Your task to perform on an android device: read, delete, or share a saved page in the chrome app Image 0: 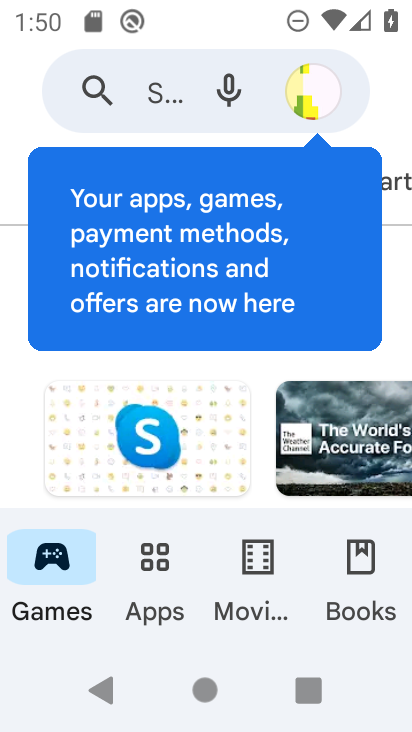
Step 0: press home button
Your task to perform on an android device: read, delete, or share a saved page in the chrome app Image 1: 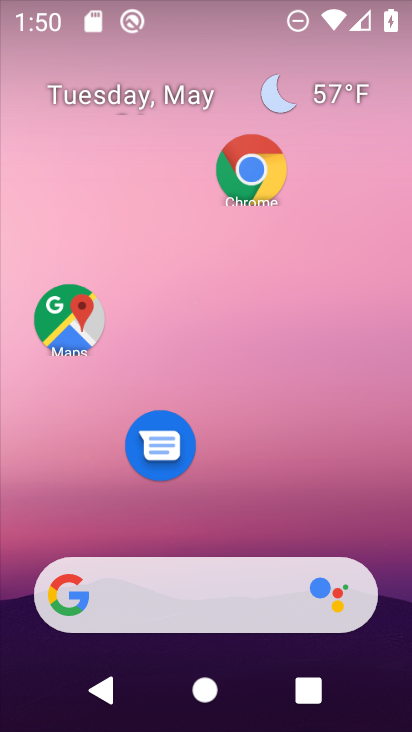
Step 1: click (250, 167)
Your task to perform on an android device: read, delete, or share a saved page in the chrome app Image 2: 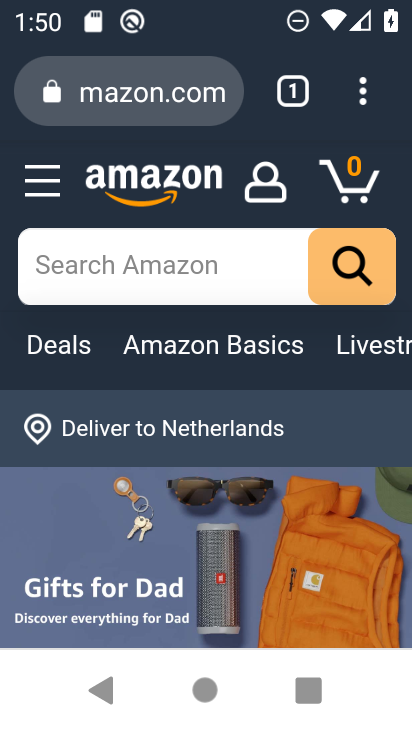
Step 2: click (368, 101)
Your task to perform on an android device: read, delete, or share a saved page in the chrome app Image 3: 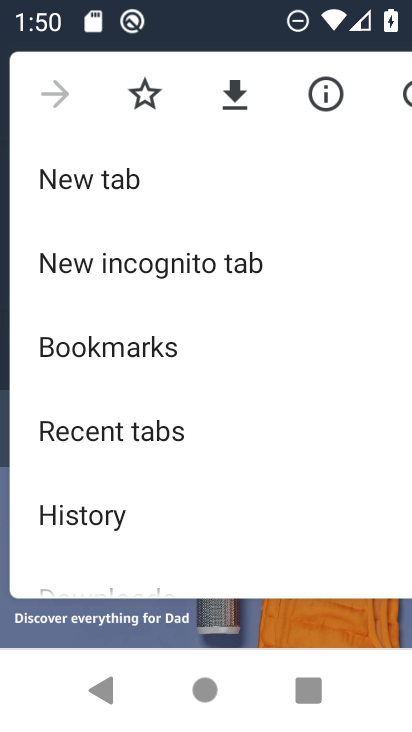
Step 3: drag from (96, 520) to (102, 209)
Your task to perform on an android device: read, delete, or share a saved page in the chrome app Image 4: 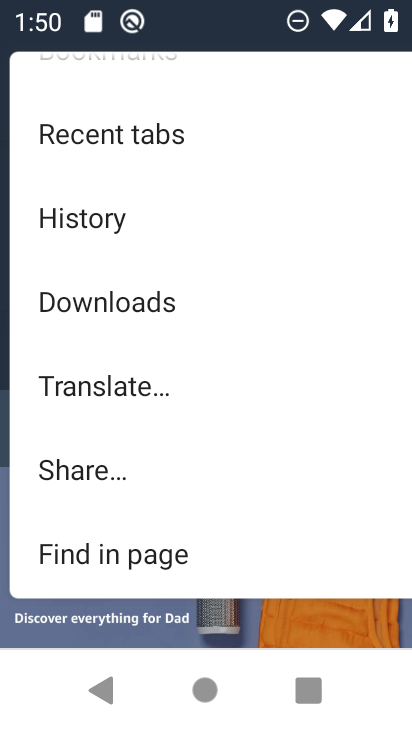
Step 4: click (131, 305)
Your task to perform on an android device: read, delete, or share a saved page in the chrome app Image 5: 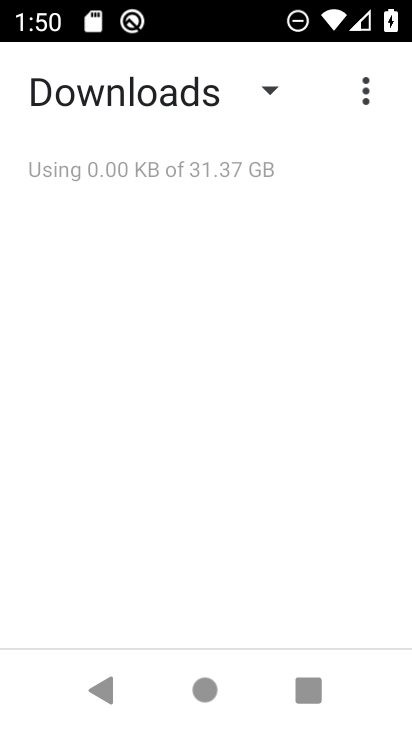
Step 5: click (264, 87)
Your task to perform on an android device: read, delete, or share a saved page in the chrome app Image 6: 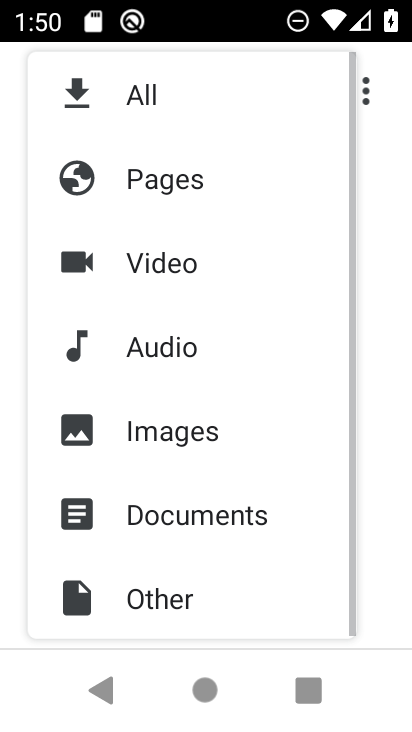
Step 6: click (155, 178)
Your task to perform on an android device: read, delete, or share a saved page in the chrome app Image 7: 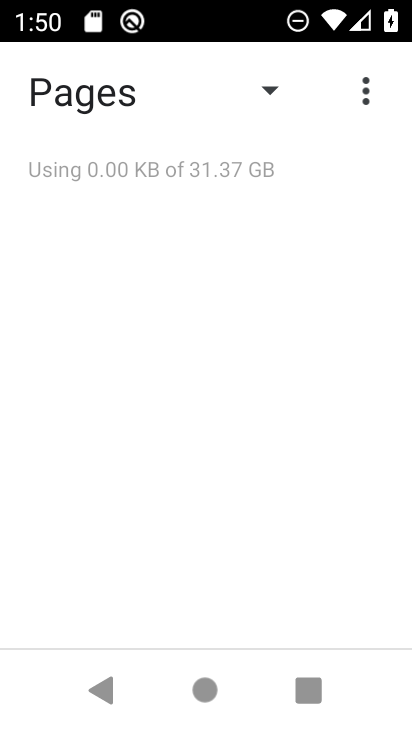
Step 7: task complete